Your task to perform on an android device: Go to Google Image 0: 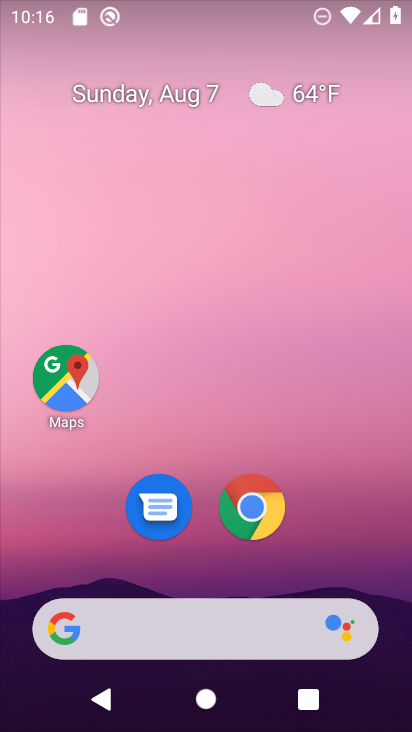
Step 0: drag from (346, 520) to (227, 36)
Your task to perform on an android device: Go to Google Image 1: 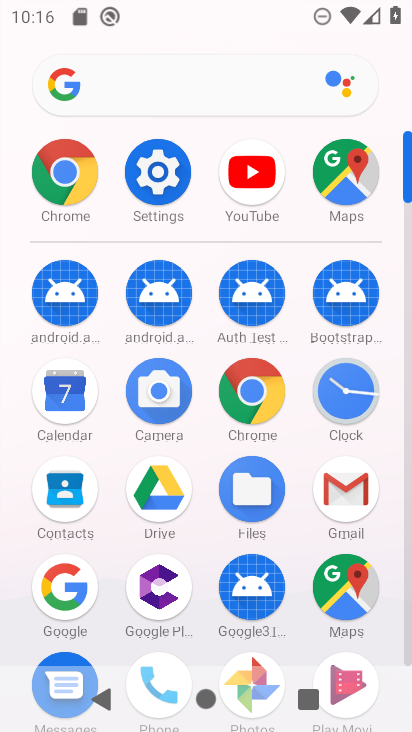
Step 1: click (55, 601)
Your task to perform on an android device: Go to Google Image 2: 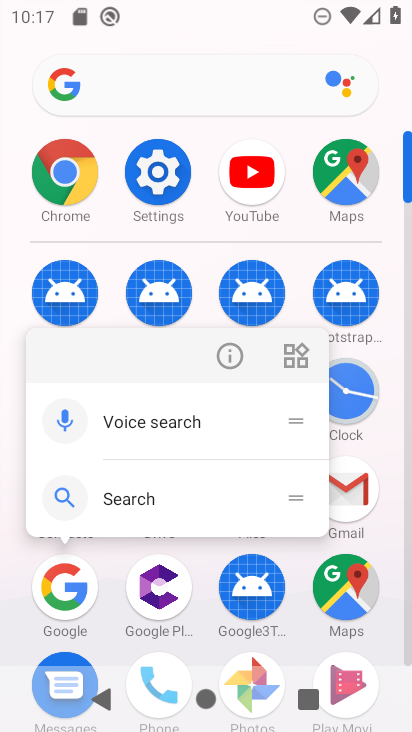
Step 2: click (63, 600)
Your task to perform on an android device: Go to Google Image 3: 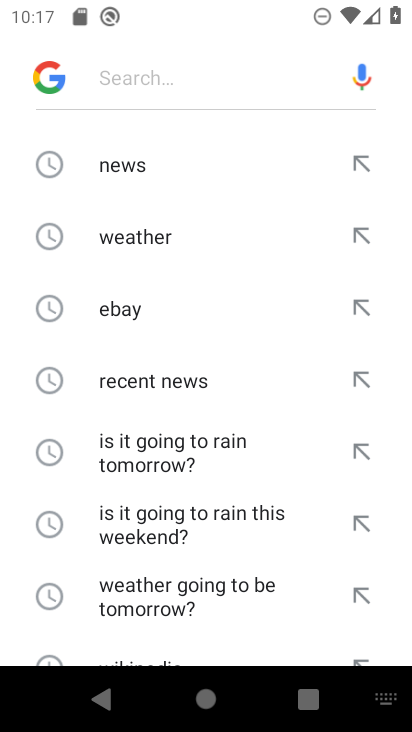
Step 3: task complete